Your task to perform on an android device: Go to ESPN.com Image 0: 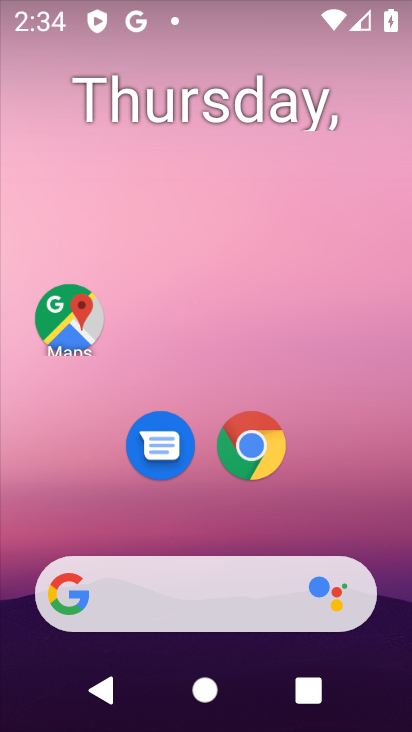
Step 0: click (264, 443)
Your task to perform on an android device: Go to ESPN.com Image 1: 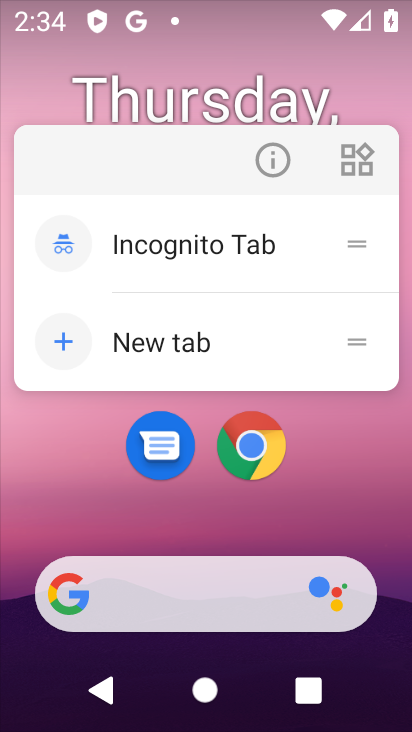
Step 1: click (264, 443)
Your task to perform on an android device: Go to ESPN.com Image 2: 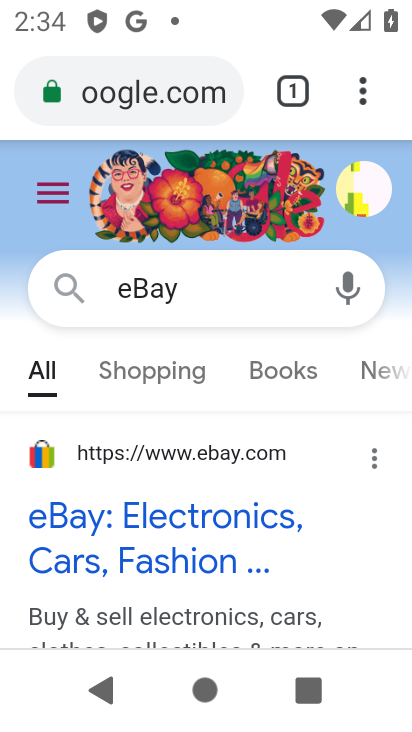
Step 2: click (167, 83)
Your task to perform on an android device: Go to ESPN.com Image 3: 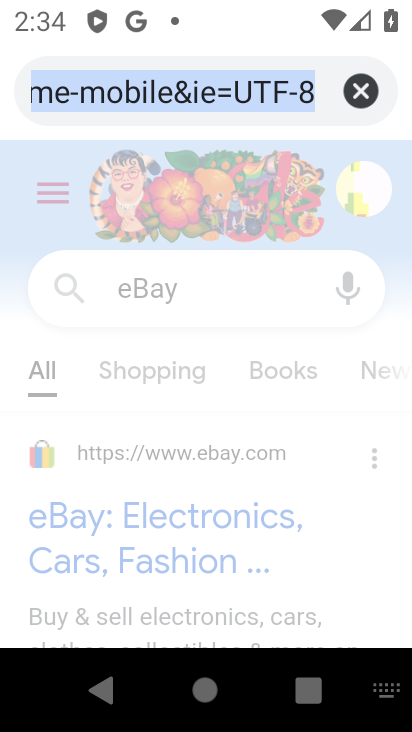
Step 3: type "ESPN.com"
Your task to perform on an android device: Go to ESPN.com Image 4: 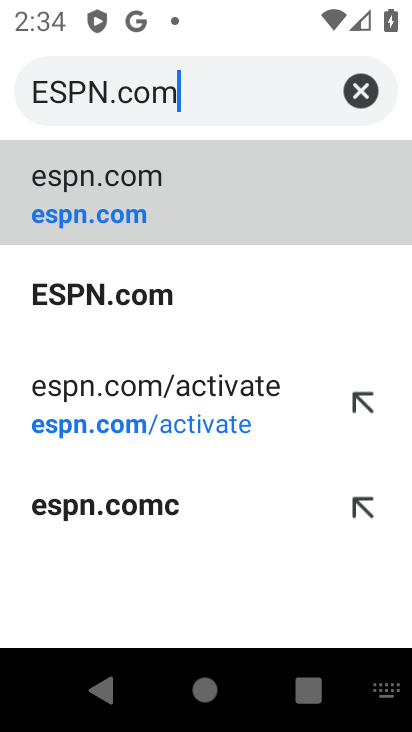
Step 4: click (267, 183)
Your task to perform on an android device: Go to ESPN.com Image 5: 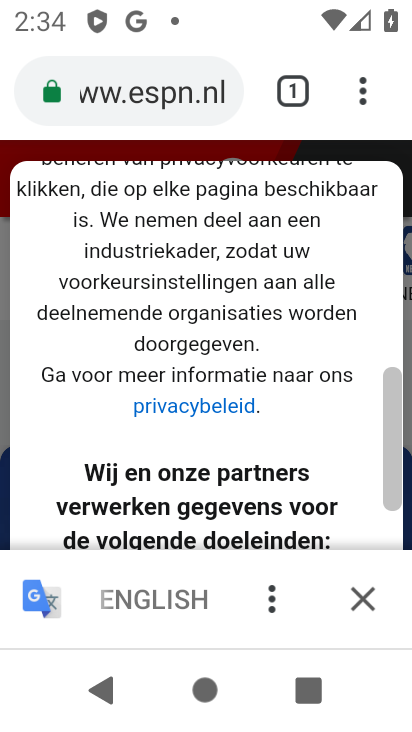
Step 5: task complete